Your task to perform on an android device: open app "Clock" (install if not already installed) Image 0: 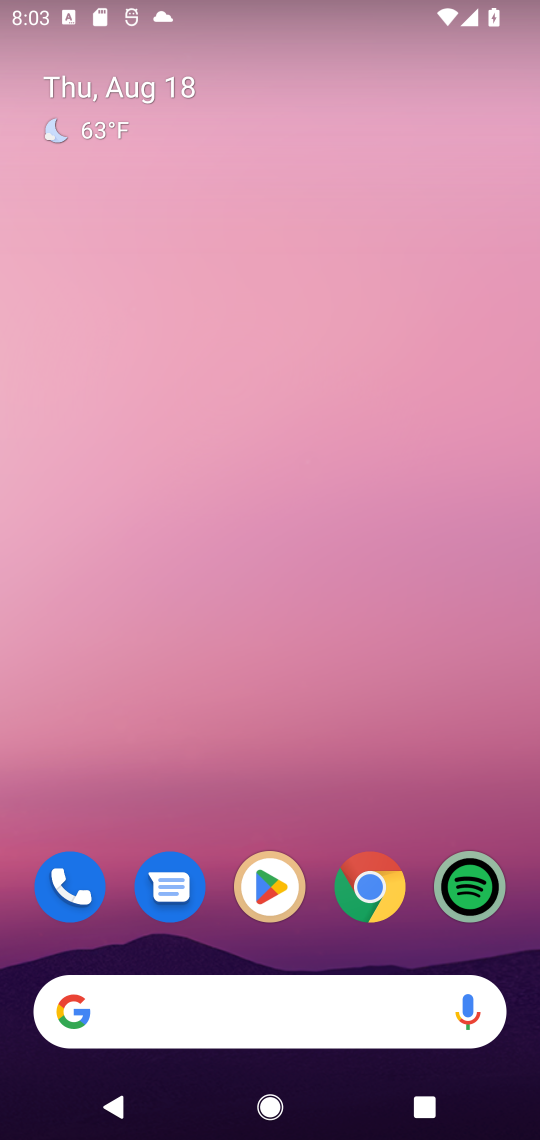
Step 0: drag from (307, 955) to (308, 153)
Your task to perform on an android device: open app "Clock" (install if not already installed) Image 1: 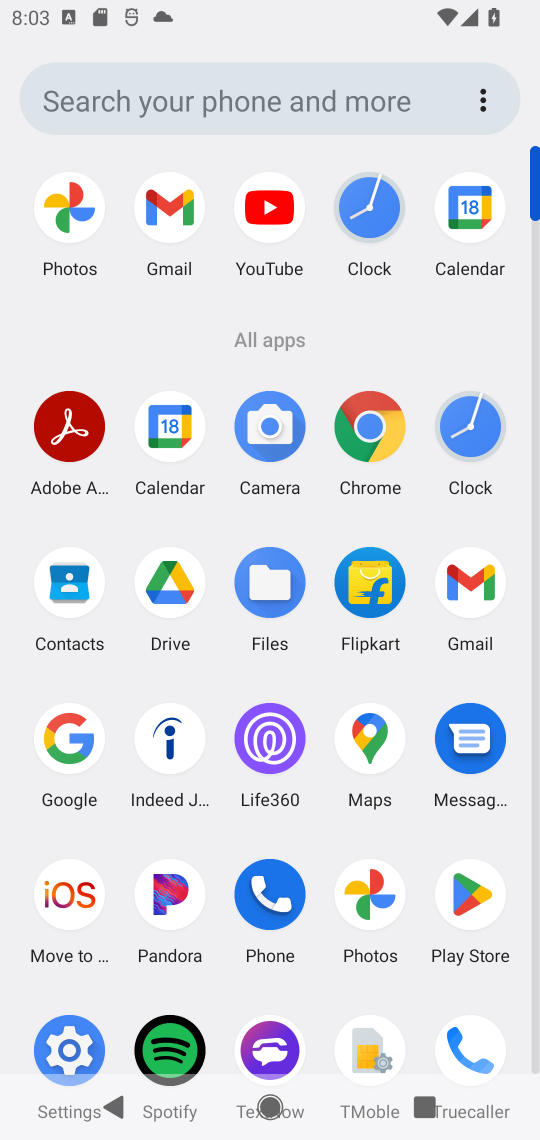
Step 1: click (464, 439)
Your task to perform on an android device: open app "Clock" (install if not already installed) Image 2: 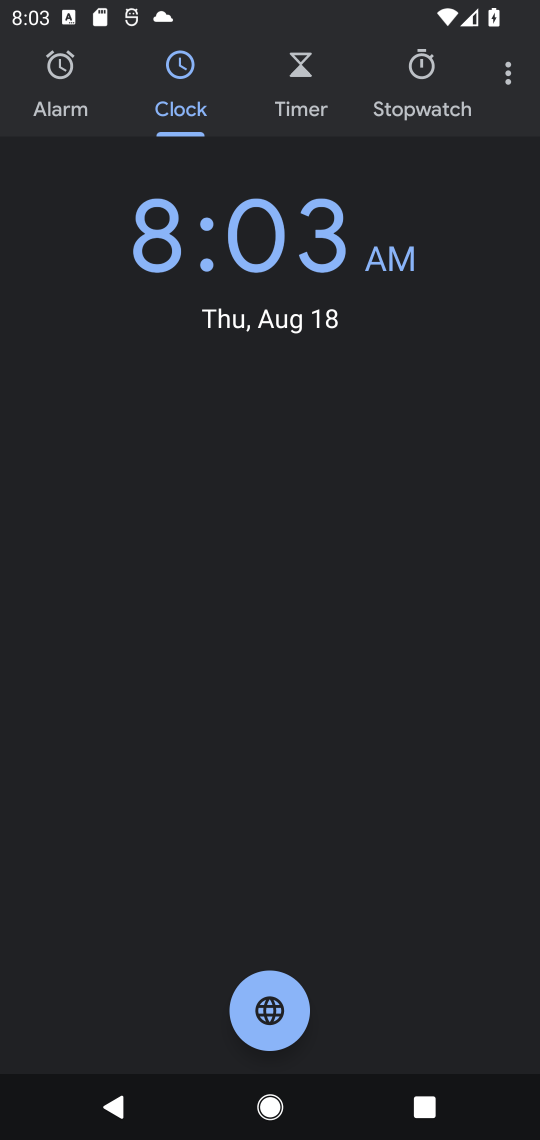
Step 2: task complete